Your task to perform on an android device: Search for the best rated electric lawnmower on Home Depot Image 0: 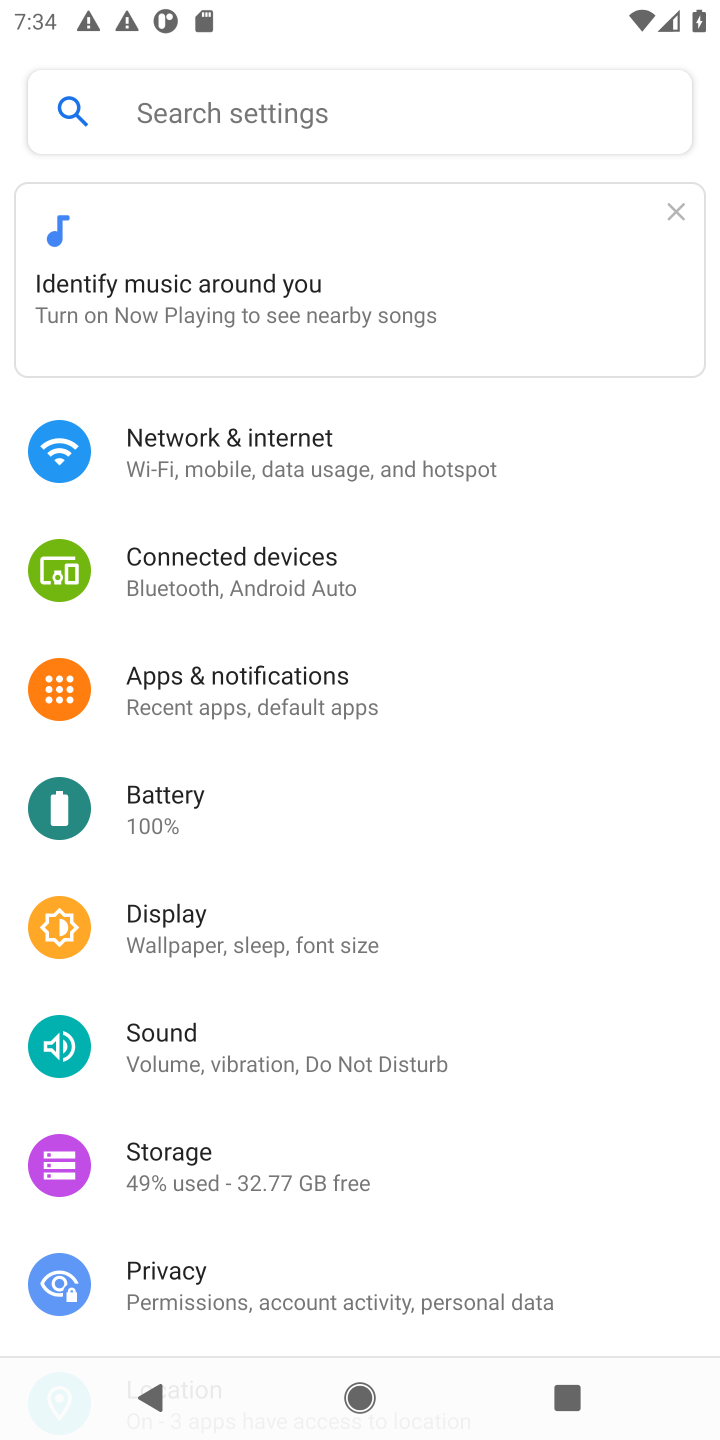
Step 0: press home button
Your task to perform on an android device: Search for the best rated electric lawnmower on Home Depot Image 1: 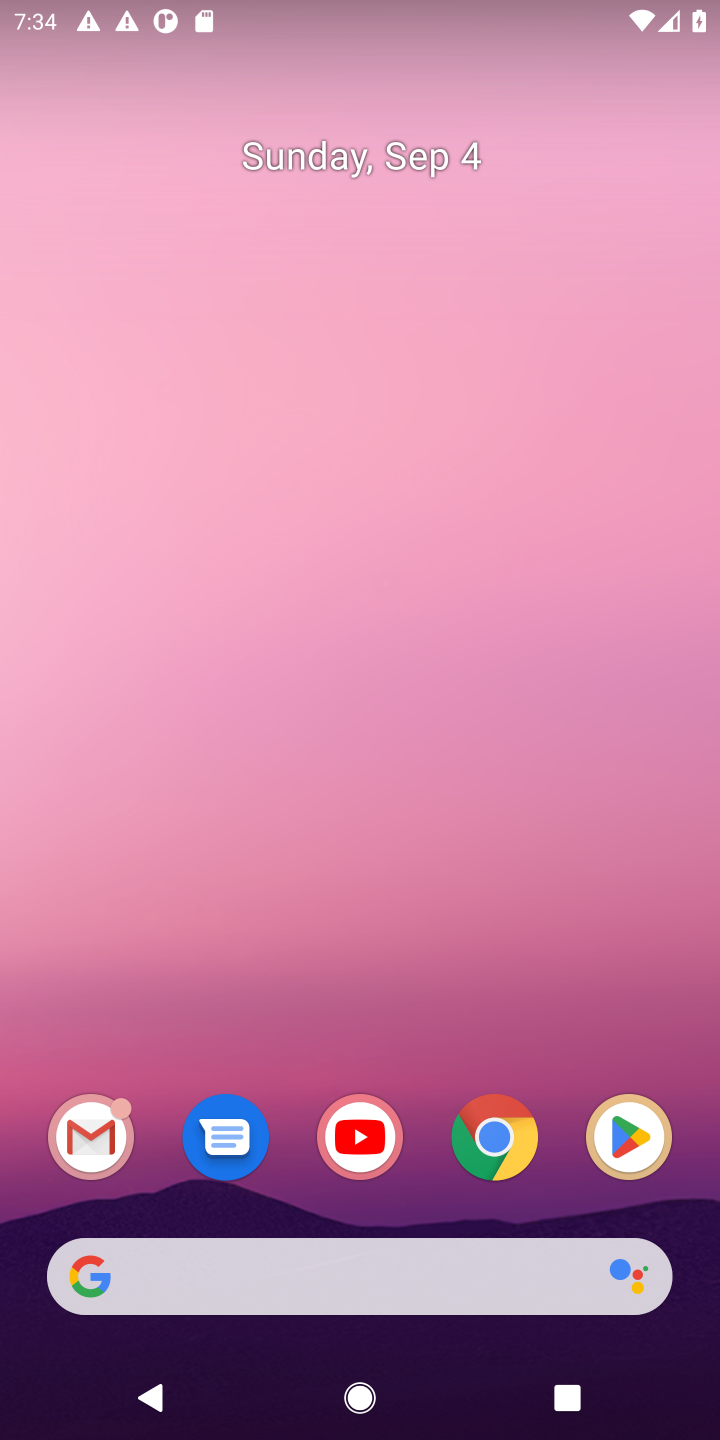
Step 1: click (493, 1144)
Your task to perform on an android device: Search for the best rated electric lawnmower on Home Depot Image 2: 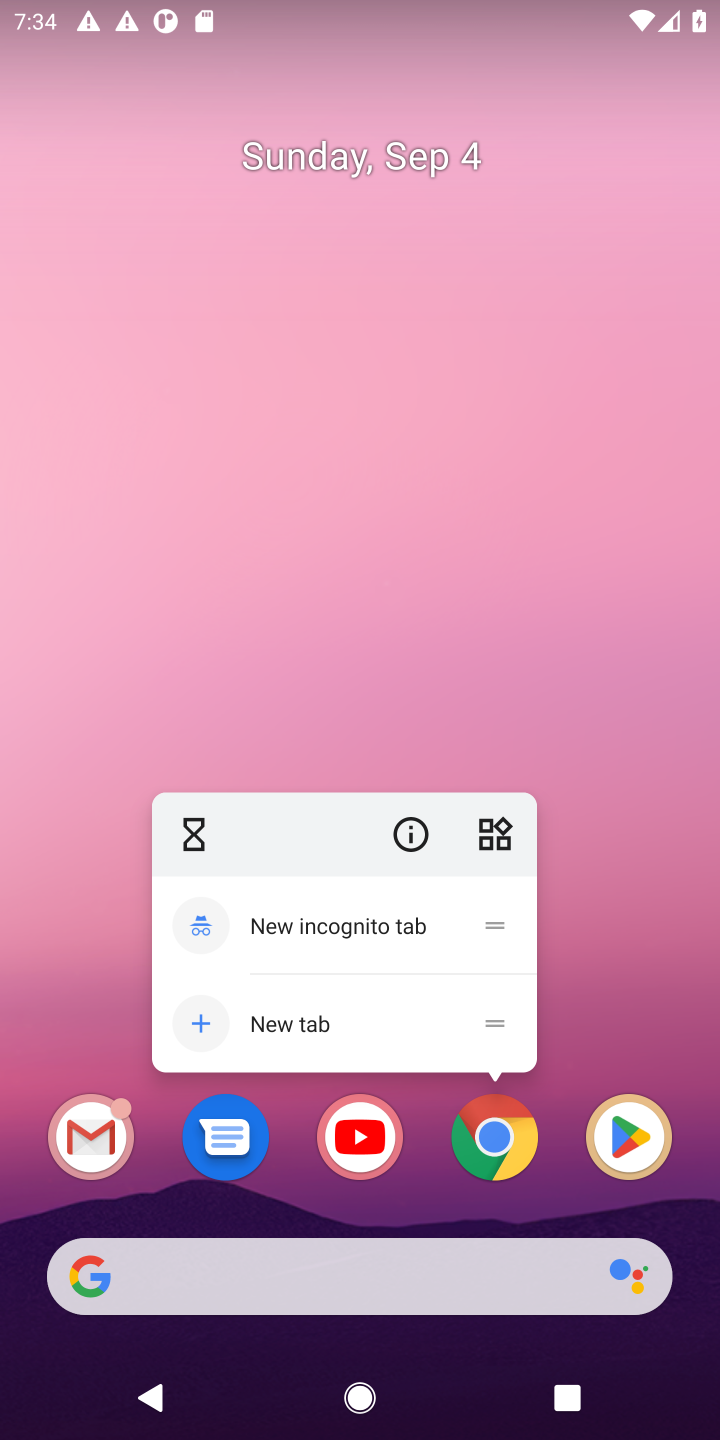
Step 2: click (495, 1140)
Your task to perform on an android device: Search for the best rated electric lawnmower on Home Depot Image 3: 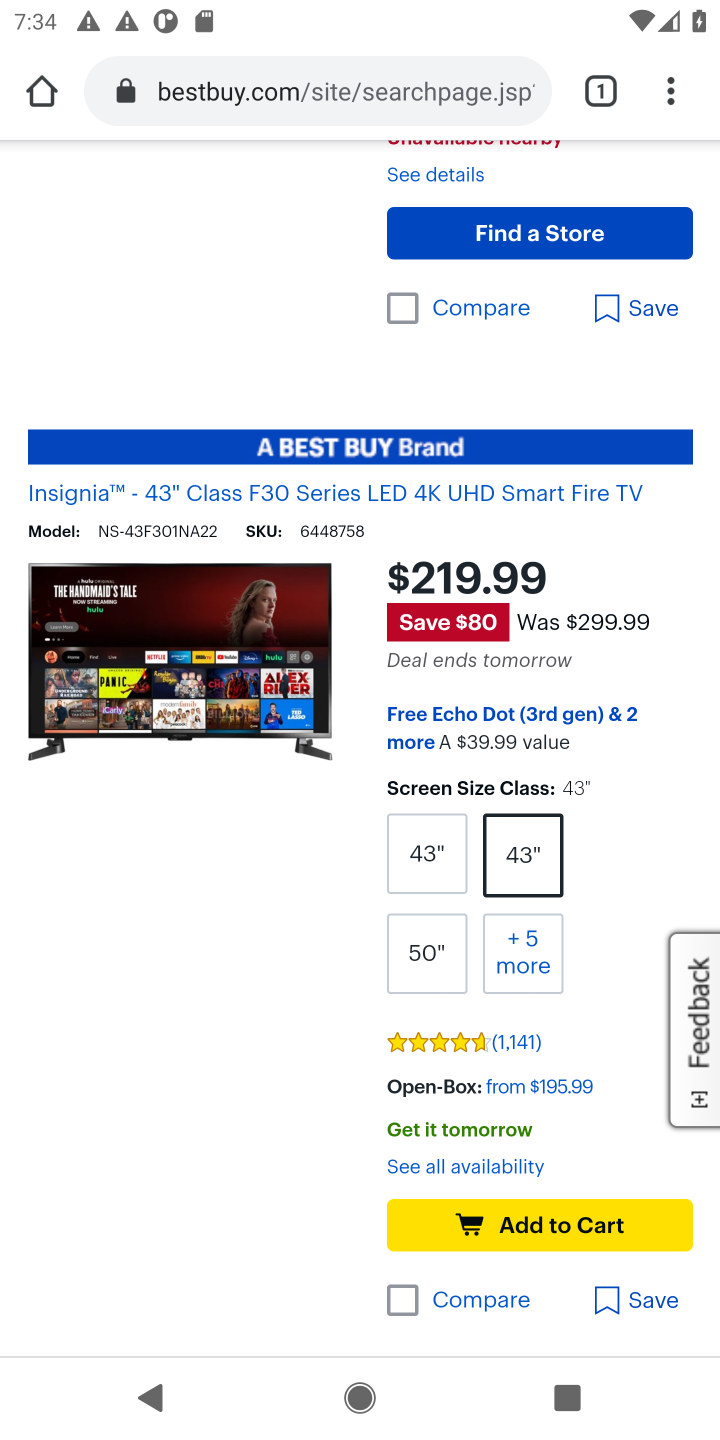
Step 3: click (400, 104)
Your task to perform on an android device: Search for the best rated electric lawnmower on Home Depot Image 4: 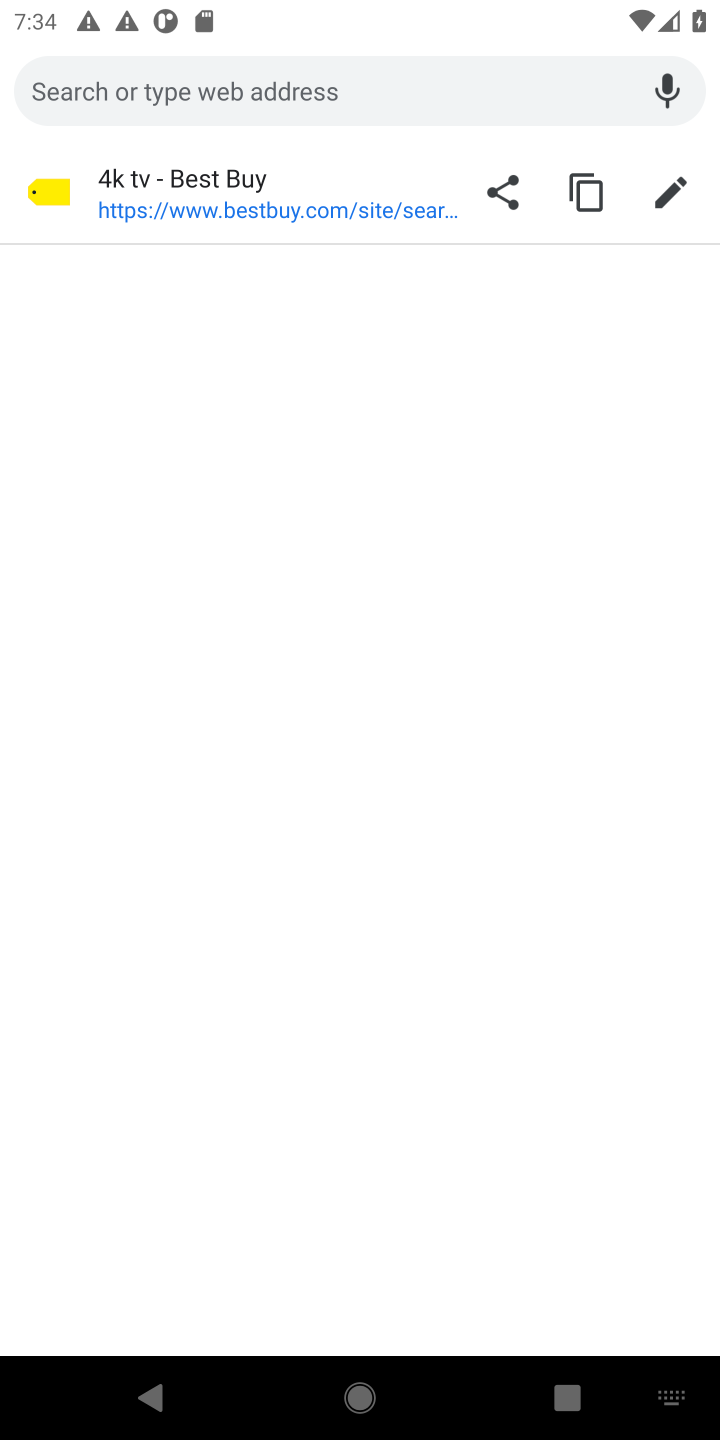
Step 4: type "Home Depot"
Your task to perform on an android device: Search for the best rated electric lawnmower on Home Depot Image 5: 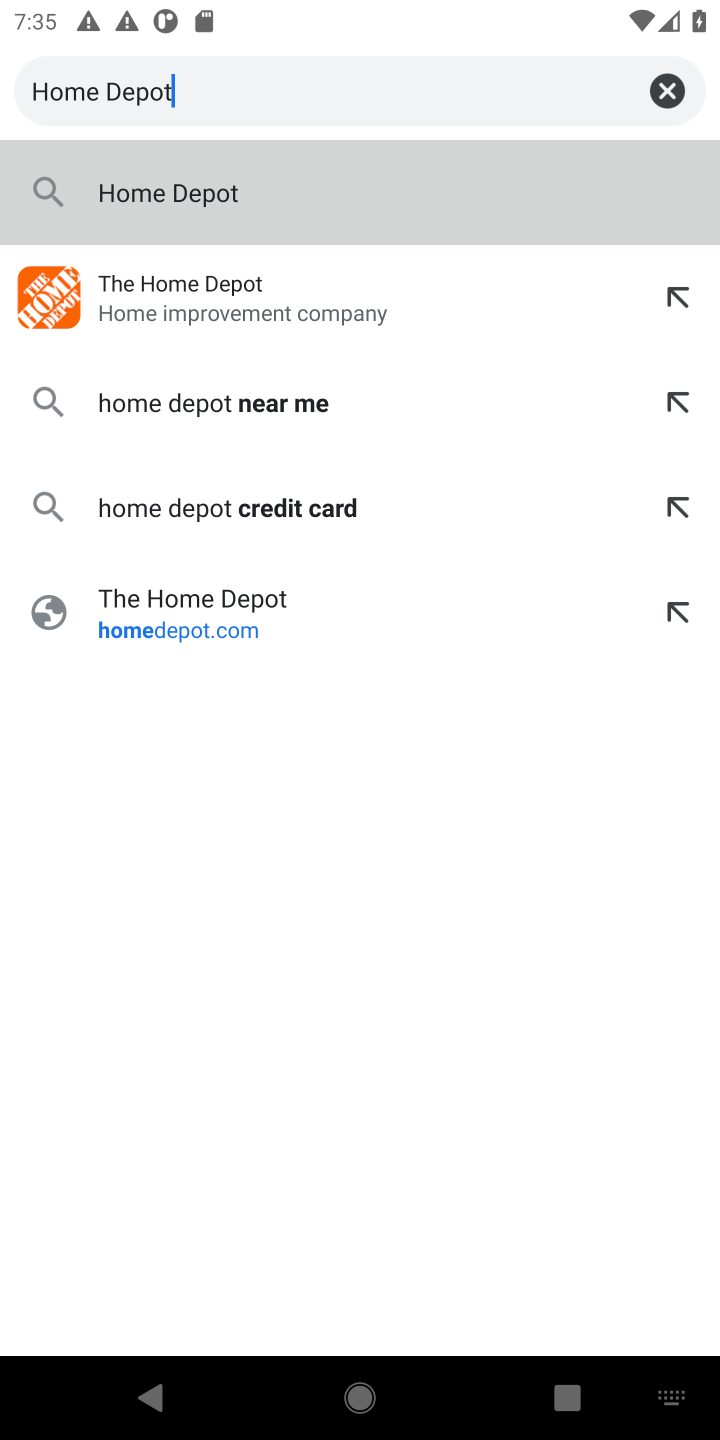
Step 5: click (378, 190)
Your task to perform on an android device: Search for the best rated electric lawnmower on Home Depot Image 6: 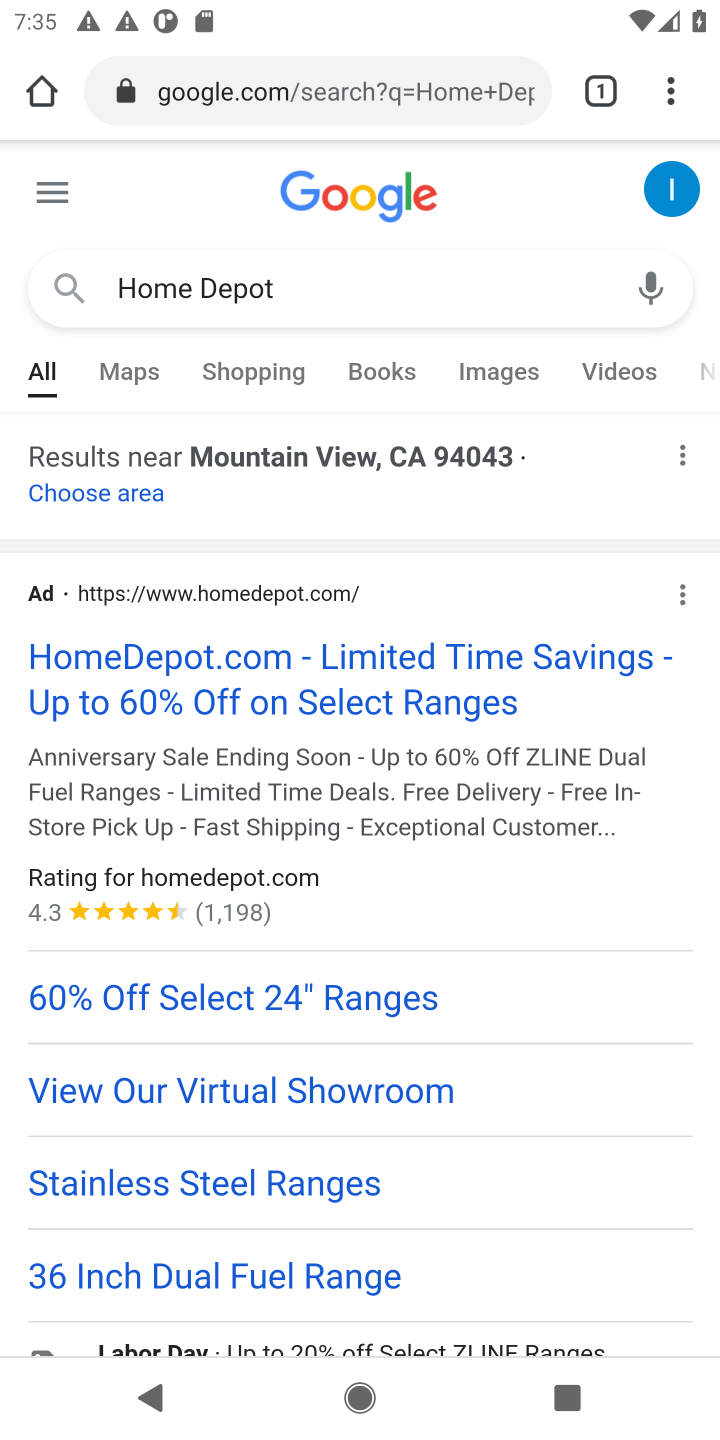
Step 6: click (337, 699)
Your task to perform on an android device: Search for the best rated electric lawnmower on Home Depot Image 7: 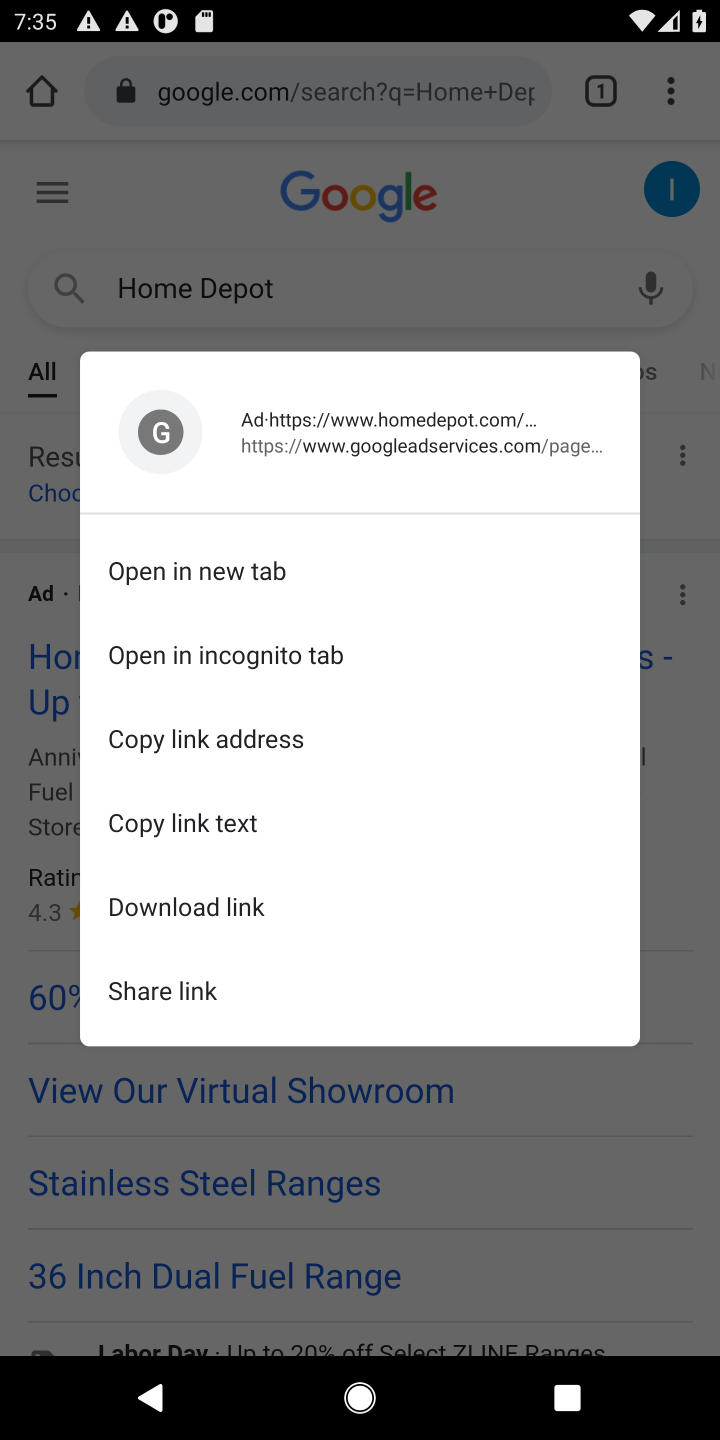
Step 7: click (395, 284)
Your task to perform on an android device: Search for the best rated electric lawnmower on Home Depot Image 8: 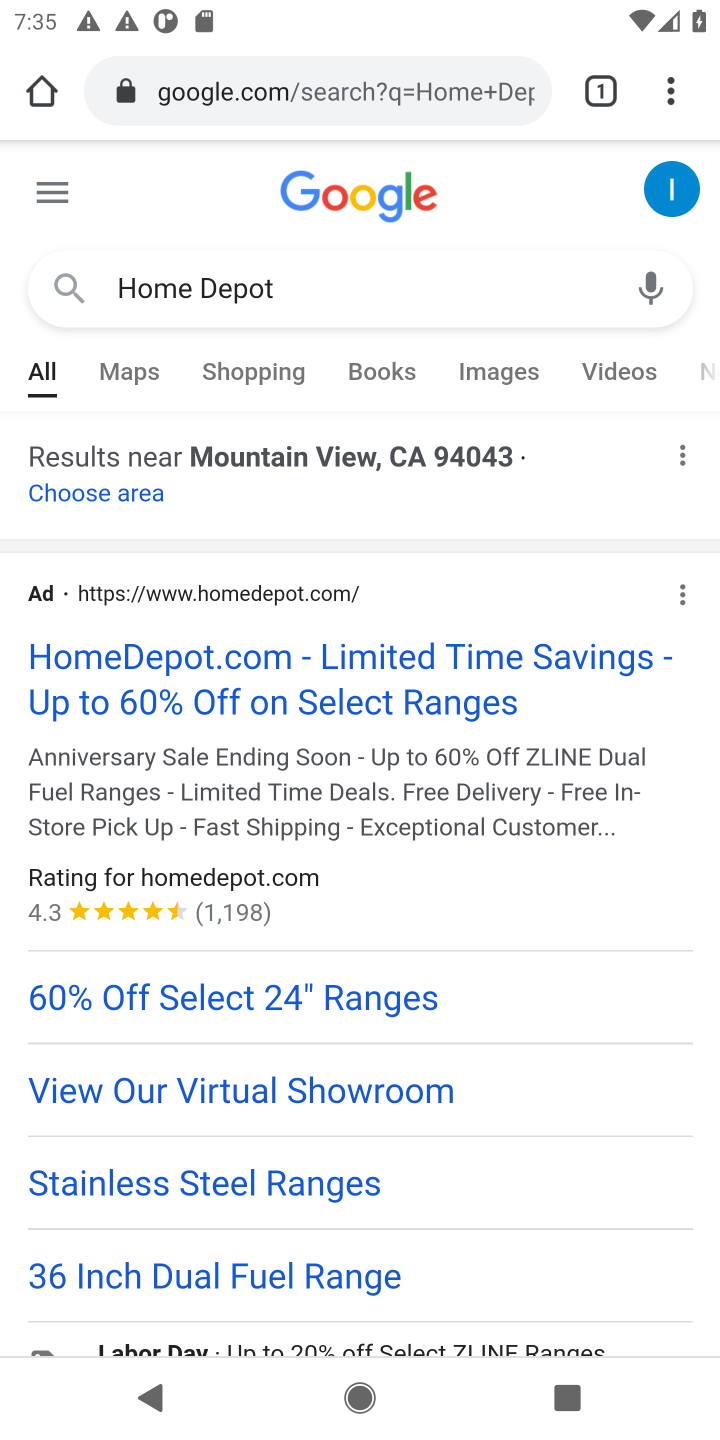
Step 8: click (207, 708)
Your task to perform on an android device: Search for the best rated electric lawnmower on Home Depot Image 9: 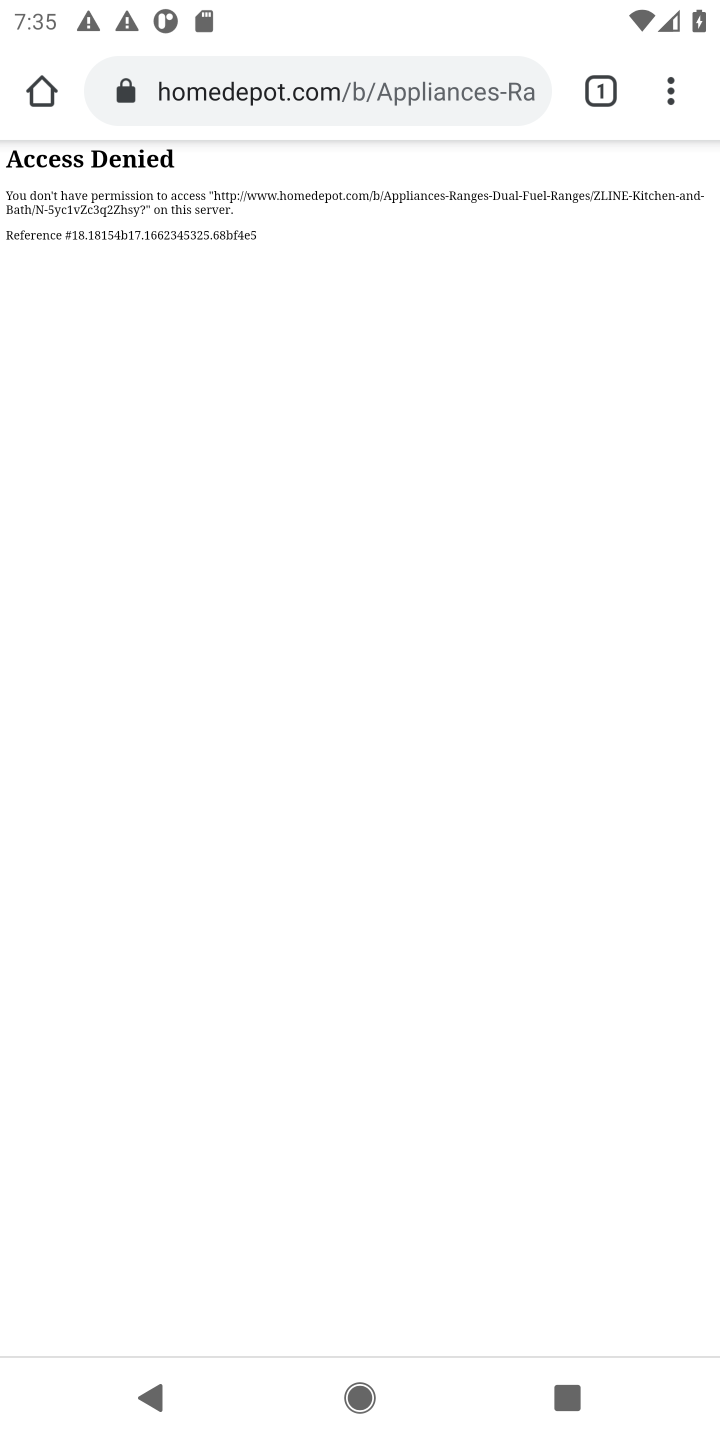
Step 9: press back button
Your task to perform on an android device: Search for the best rated electric lawnmower on Home Depot Image 10: 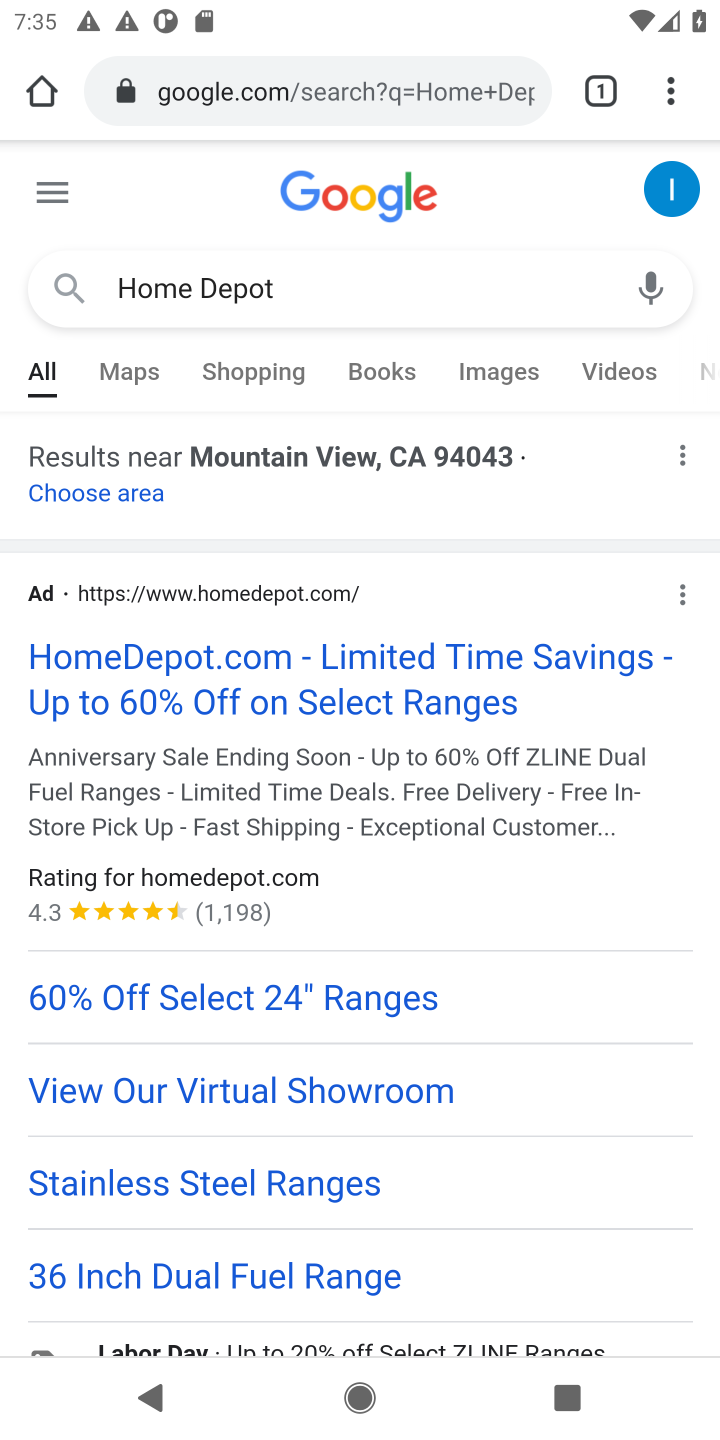
Step 10: drag from (304, 1109) to (524, 828)
Your task to perform on an android device: Search for the best rated electric lawnmower on Home Depot Image 11: 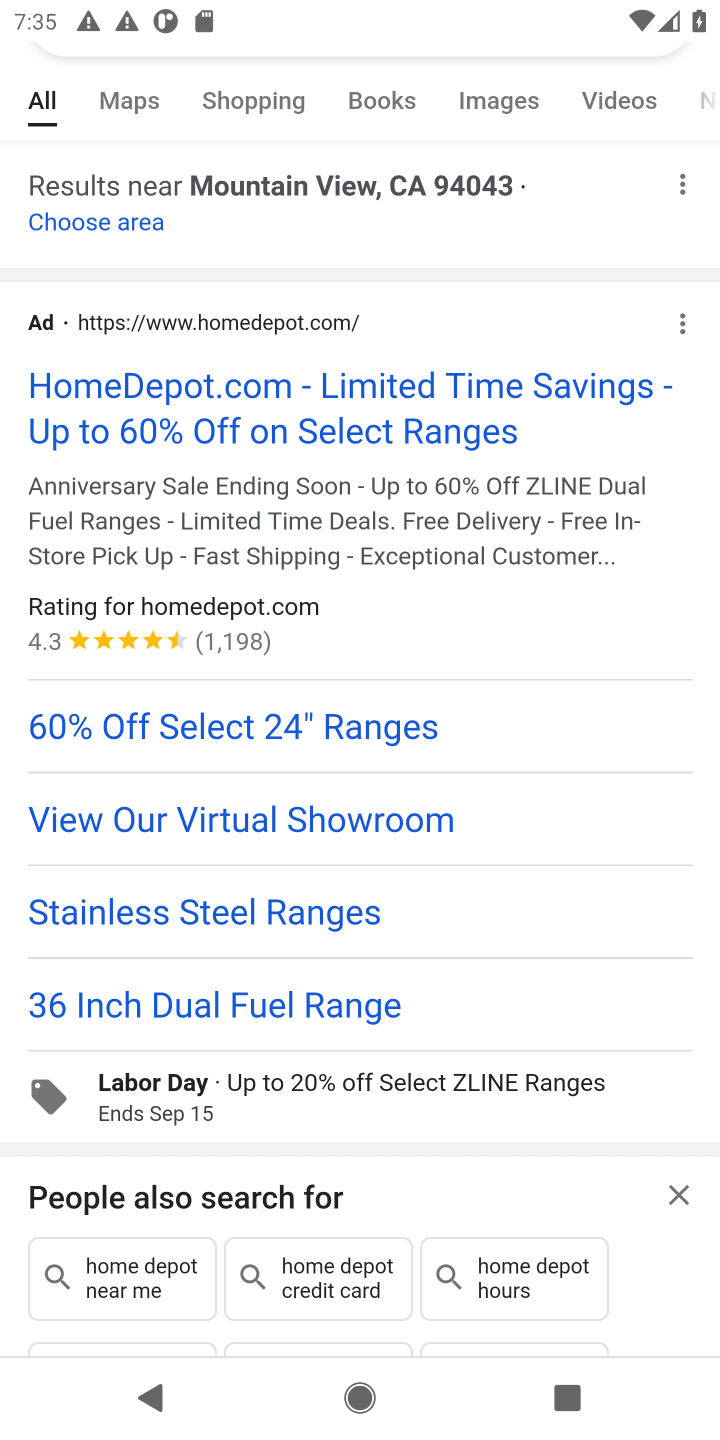
Step 11: drag from (360, 1158) to (532, 937)
Your task to perform on an android device: Search for the best rated electric lawnmower on Home Depot Image 12: 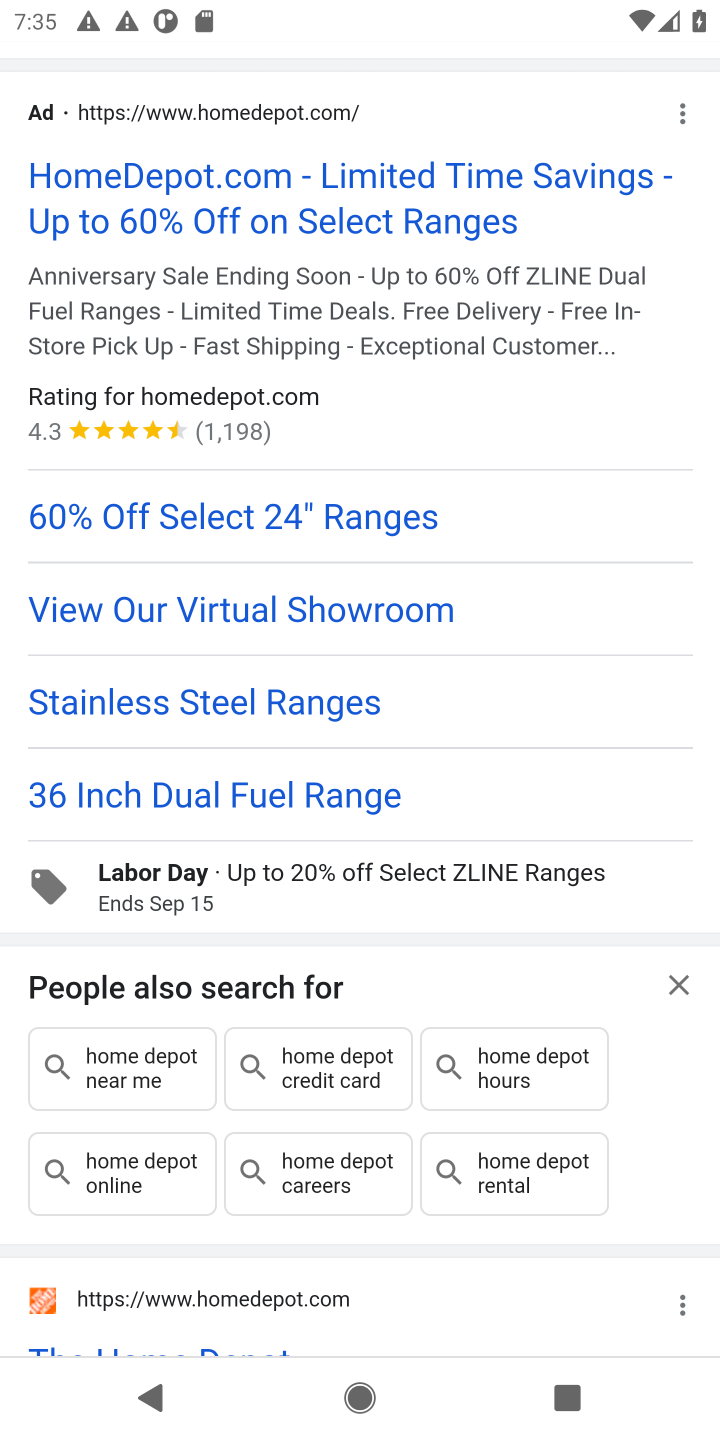
Step 12: drag from (421, 1155) to (615, 856)
Your task to perform on an android device: Search for the best rated electric lawnmower on Home Depot Image 13: 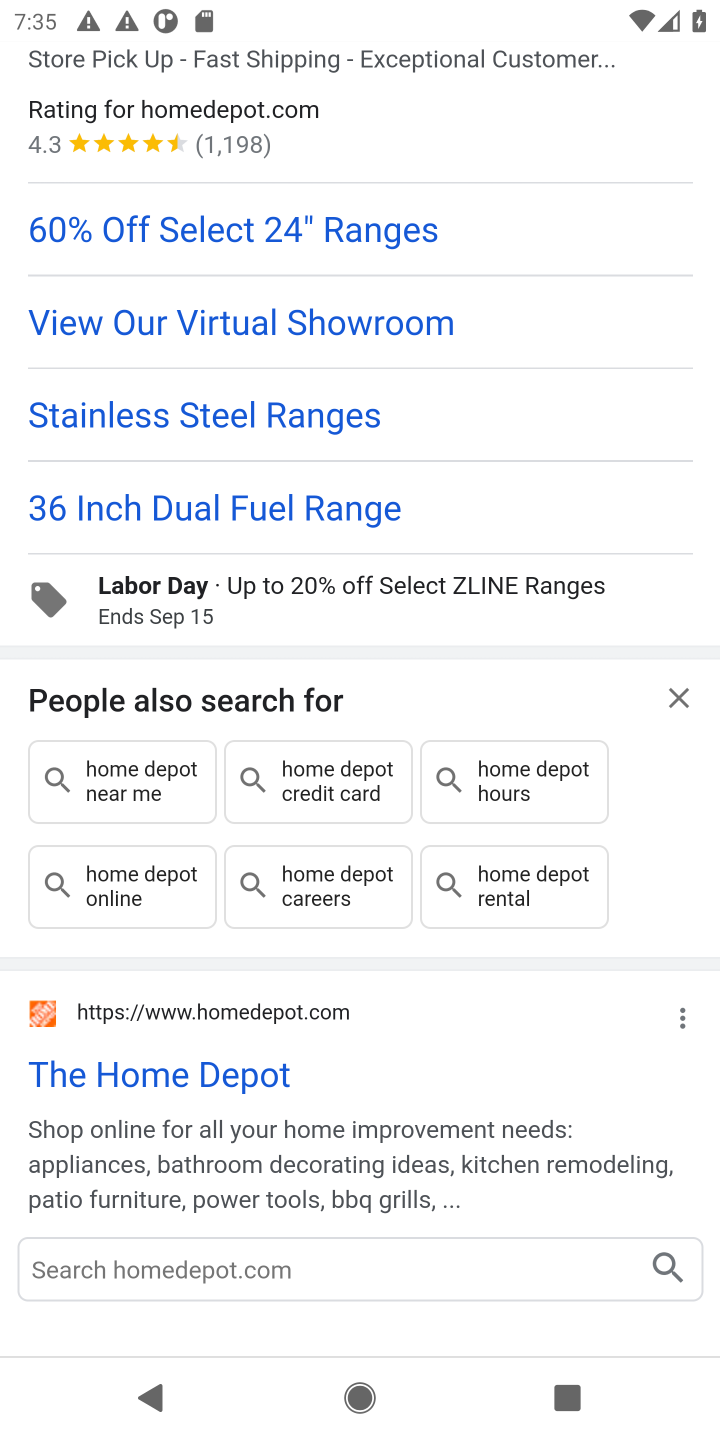
Step 13: click (207, 1076)
Your task to perform on an android device: Search for the best rated electric lawnmower on Home Depot Image 14: 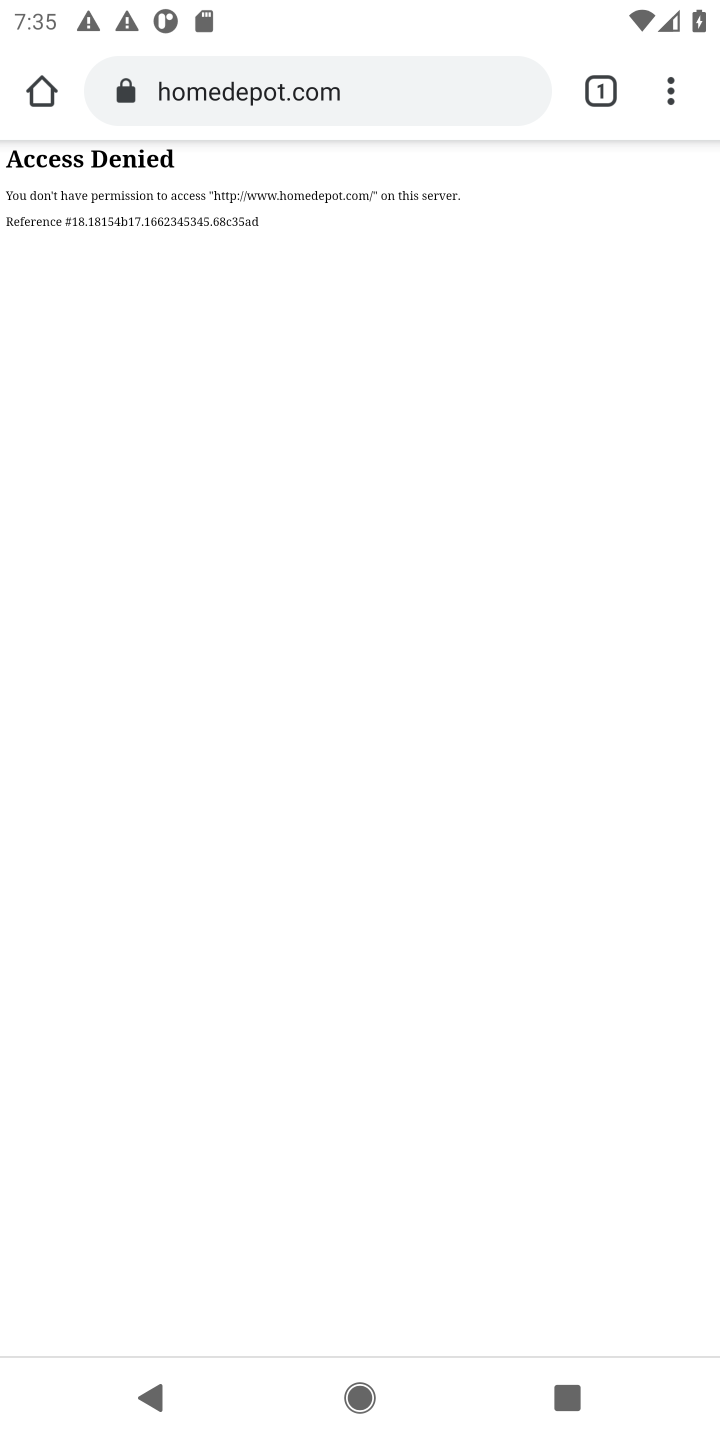
Step 14: task complete